Your task to perform on an android device: Open battery settings Image 0: 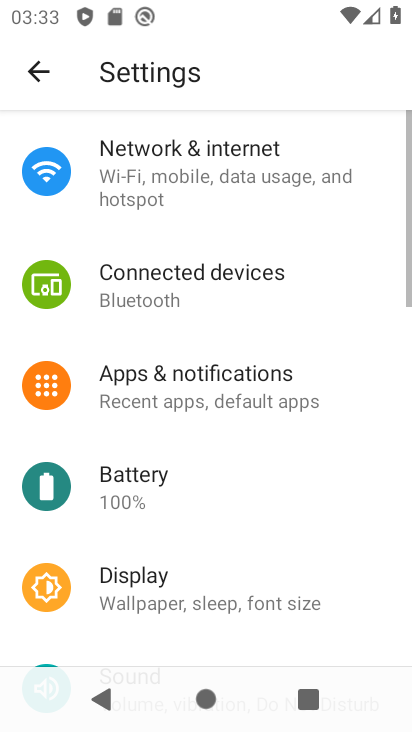
Step 0: press home button
Your task to perform on an android device: Open battery settings Image 1: 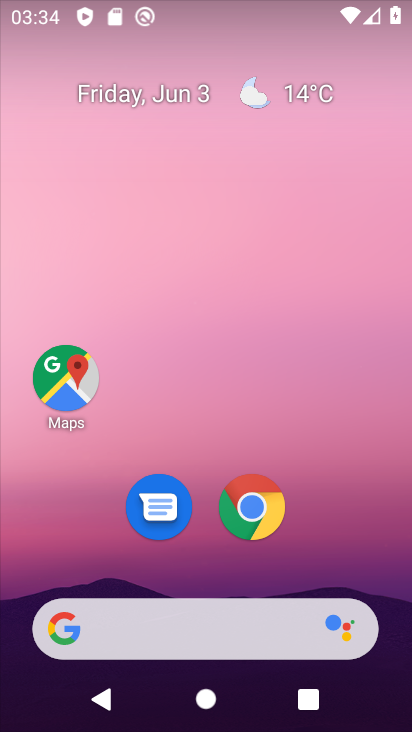
Step 1: drag from (132, 585) to (177, 74)
Your task to perform on an android device: Open battery settings Image 2: 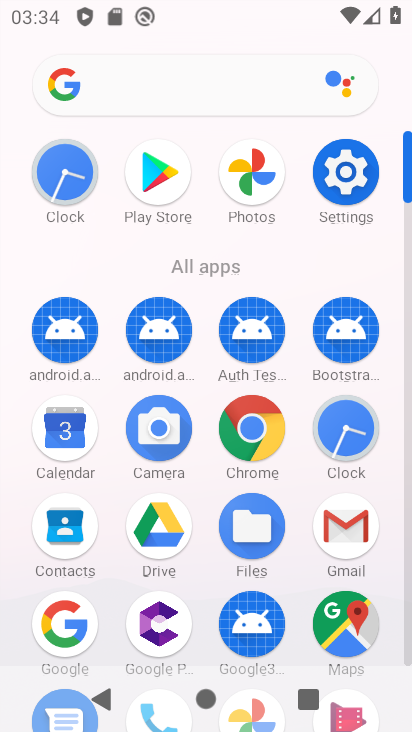
Step 2: click (350, 184)
Your task to perform on an android device: Open battery settings Image 3: 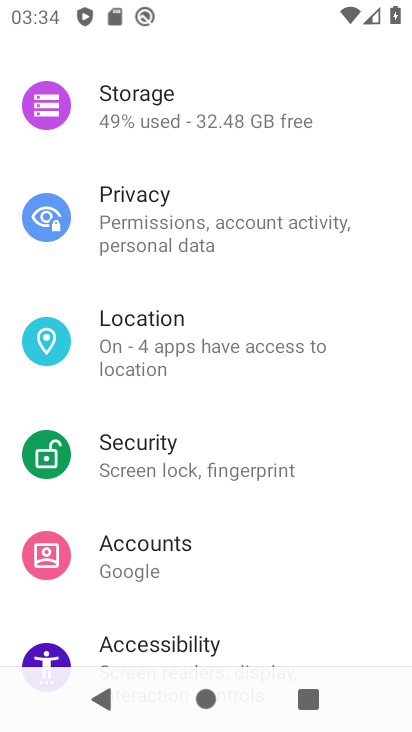
Step 3: drag from (198, 172) to (204, 645)
Your task to perform on an android device: Open battery settings Image 4: 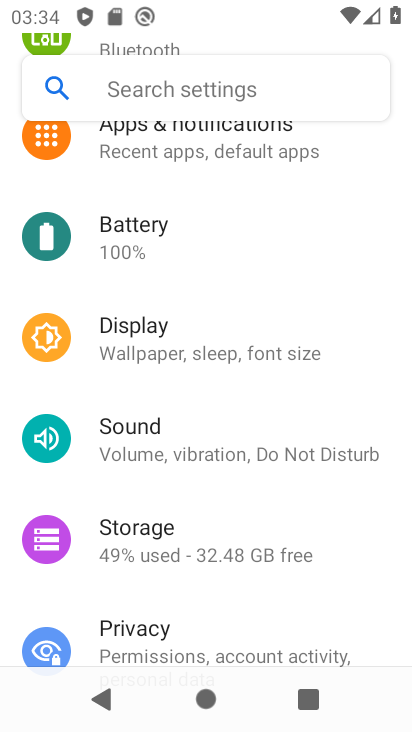
Step 4: click (113, 245)
Your task to perform on an android device: Open battery settings Image 5: 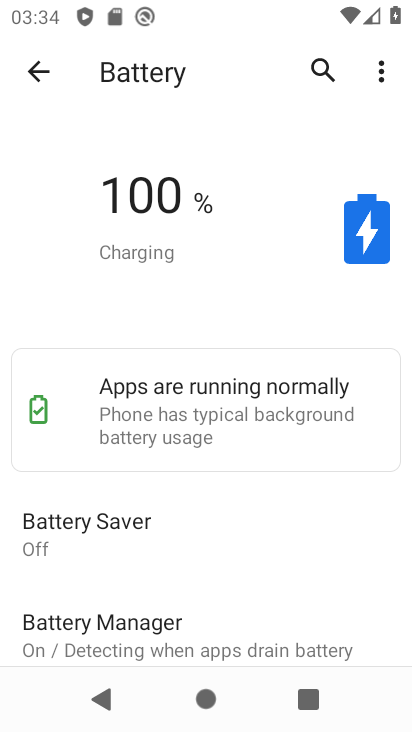
Step 5: task complete